Your task to perform on an android device: change your default location settings in chrome Image 0: 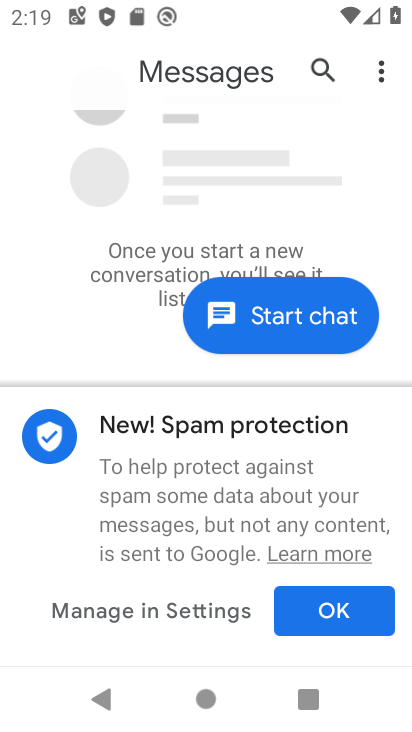
Step 0: press home button
Your task to perform on an android device: change your default location settings in chrome Image 1: 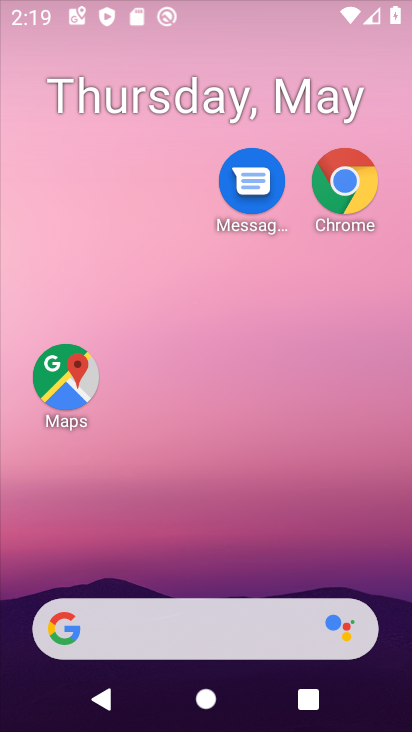
Step 1: drag from (226, 616) to (337, 5)
Your task to perform on an android device: change your default location settings in chrome Image 2: 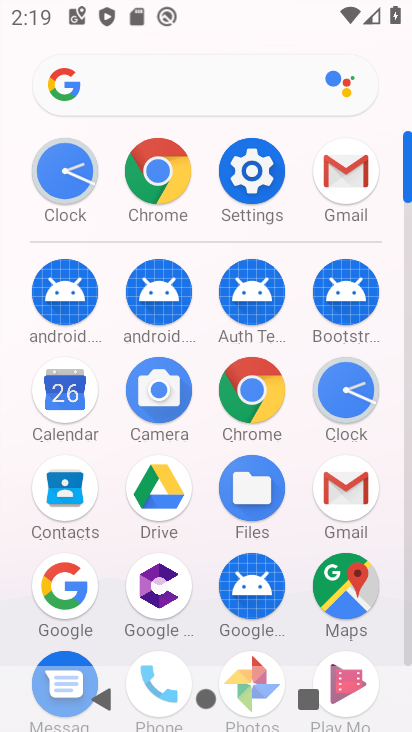
Step 2: click (263, 385)
Your task to perform on an android device: change your default location settings in chrome Image 3: 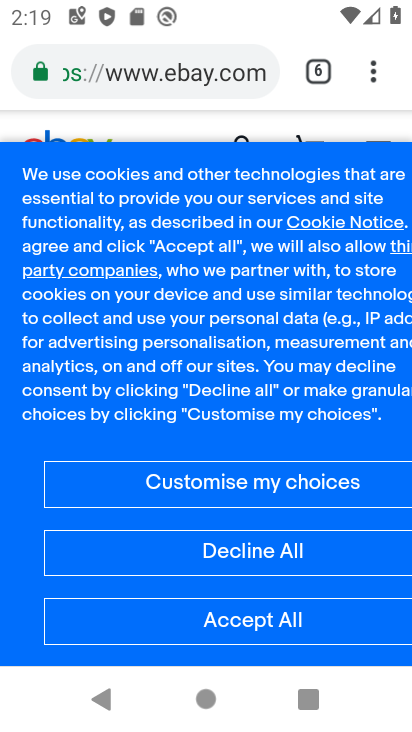
Step 3: click (370, 73)
Your task to perform on an android device: change your default location settings in chrome Image 4: 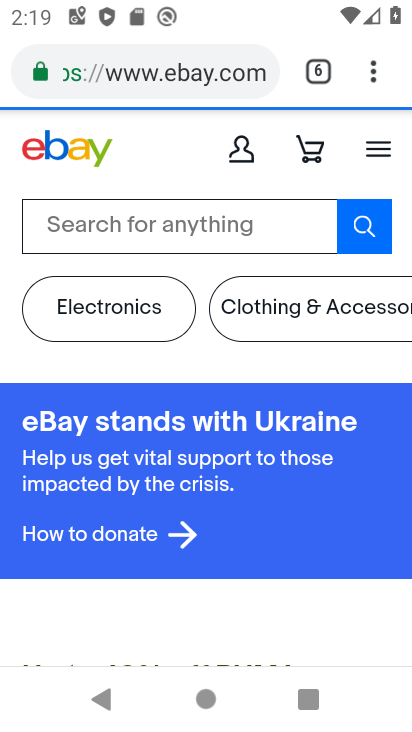
Step 4: drag from (370, 76) to (110, 504)
Your task to perform on an android device: change your default location settings in chrome Image 5: 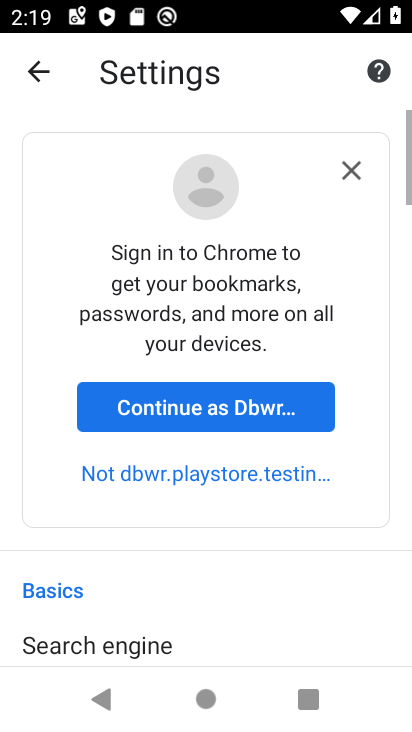
Step 5: drag from (151, 612) to (193, 35)
Your task to perform on an android device: change your default location settings in chrome Image 6: 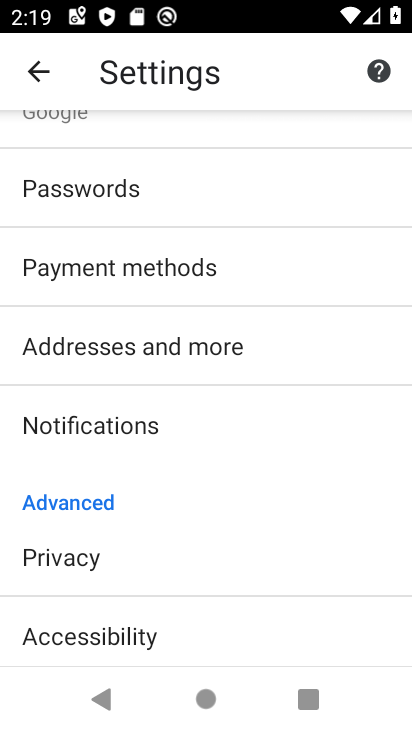
Step 6: drag from (206, 553) to (245, 223)
Your task to perform on an android device: change your default location settings in chrome Image 7: 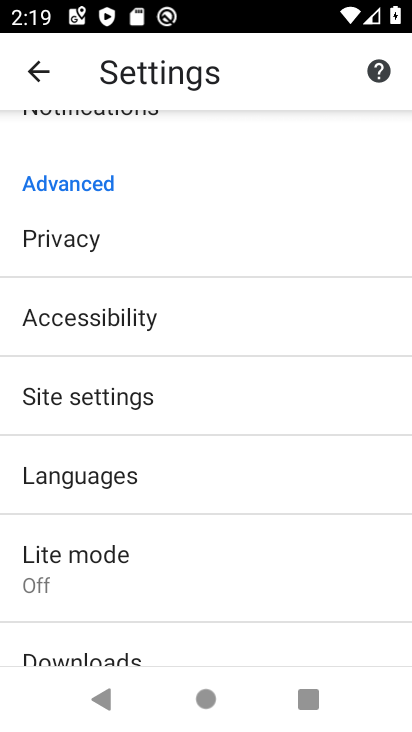
Step 7: drag from (198, 612) to (247, 337)
Your task to perform on an android device: change your default location settings in chrome Image 8: 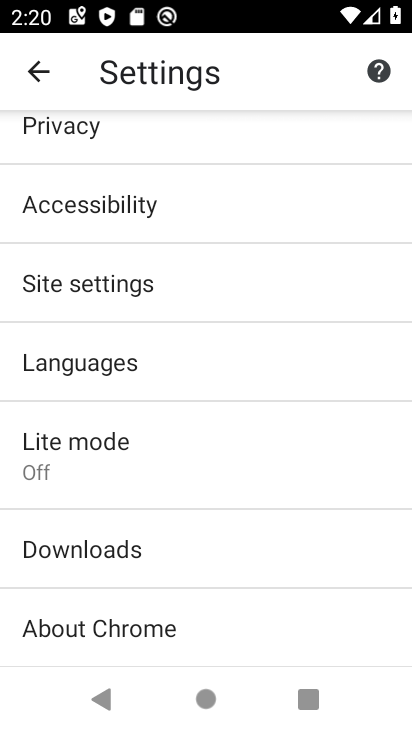
Step 8: drag from (253, 287) to (198, 714)
Your task to perform on an android device: change your default location settings in chrome Image 9: 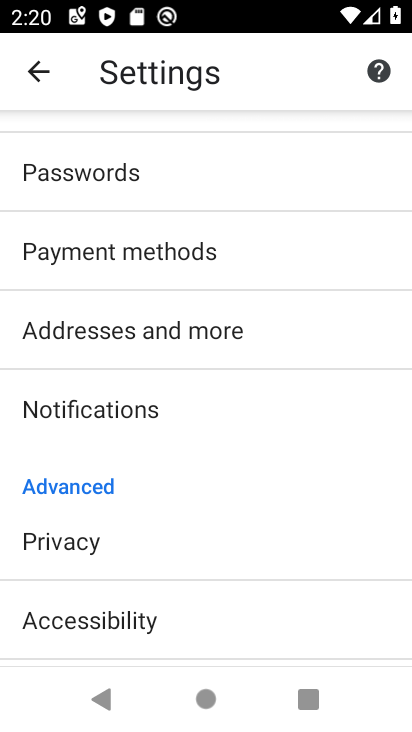
Step 9: drag from (171, 616) to (206, 308)
Your task to perform on an android device: change your default location settings in chrome Image 10: 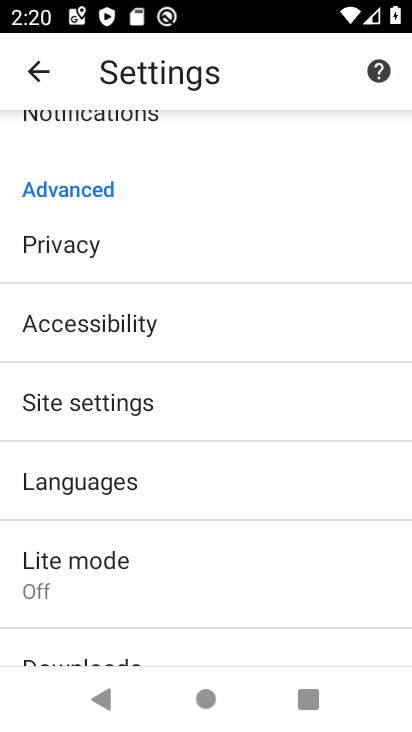
Step 10: click (143, 408)
Your task to perform on an android device: change your default location settings in chrome Image 11: 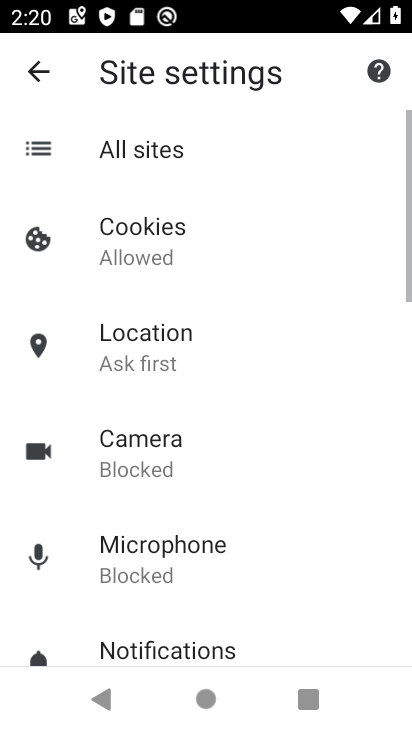
Step 11: click (189, 350)
Your task to perform on an android device: change your default location settings in chrome Image 12: 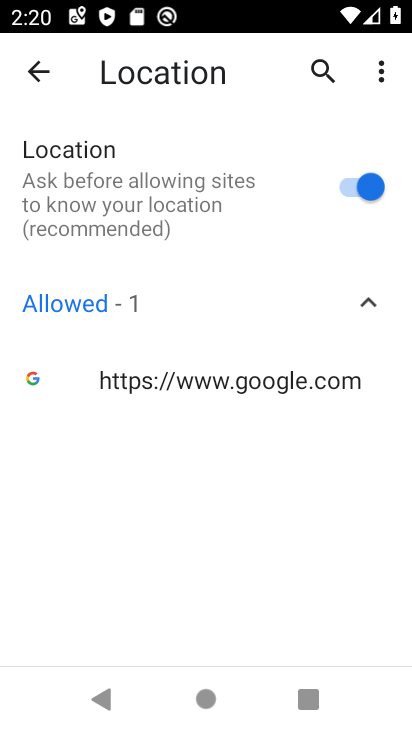
Step 12: task complete